Your task to perform on an android device: turn off javascript in the chrome app Image 0: 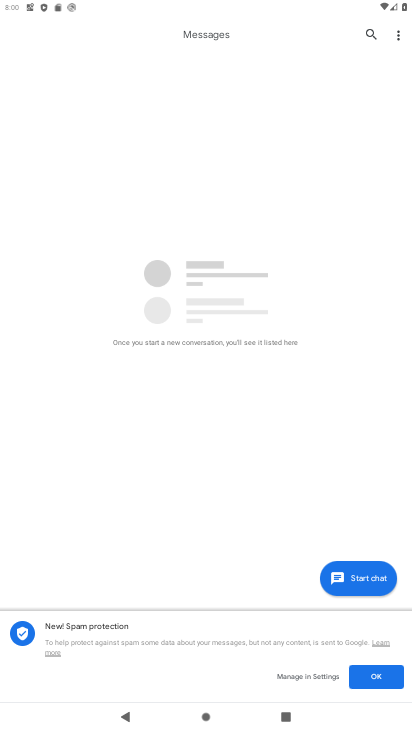
Step 0: press home button
Your task to perform on an android device: turn off javascript in the chrome app Image 1: 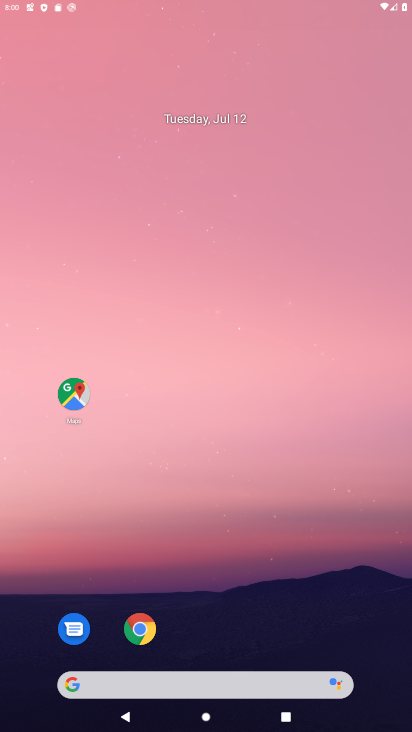
Step 1: drag from (196, 625) to (192, 252)
Your task to perform on an android device: turn off javascript in the chrome app Image 2: 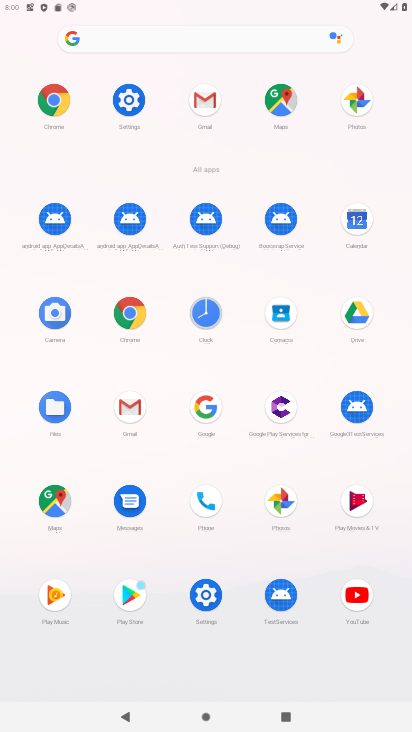
Step 2: click (119, 318)
Your task to perform on an android device: turn off javascript in the chrome app Image 3: 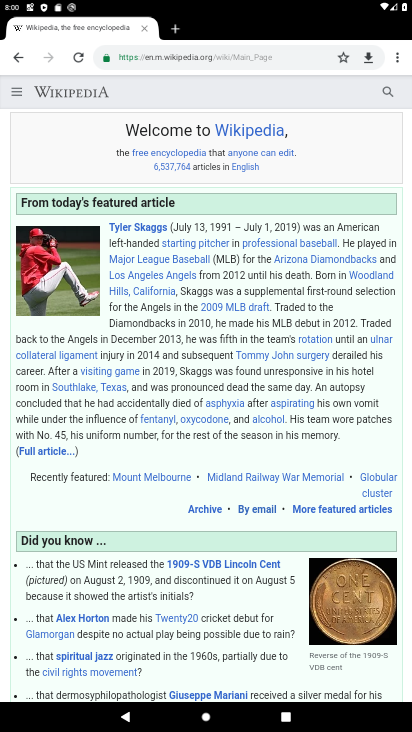
Step 3: click (397, 55)
Your task to perform on an android device: turn off javascript in the chrome app Image 4: 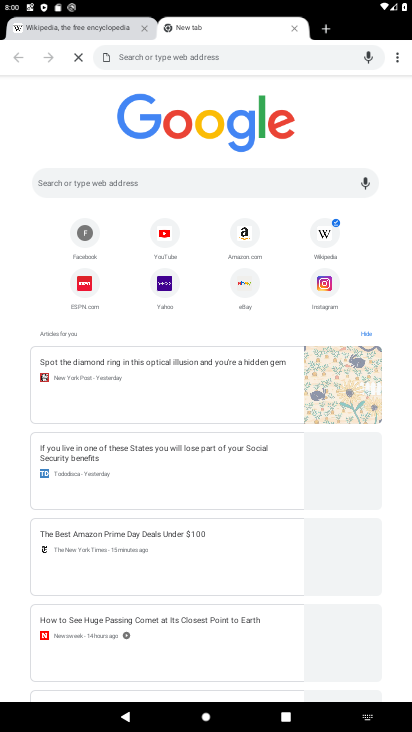
Step 4: click (408, 50)
Your task to perform on an android device: turn off javascript in the chrome app Image 5: 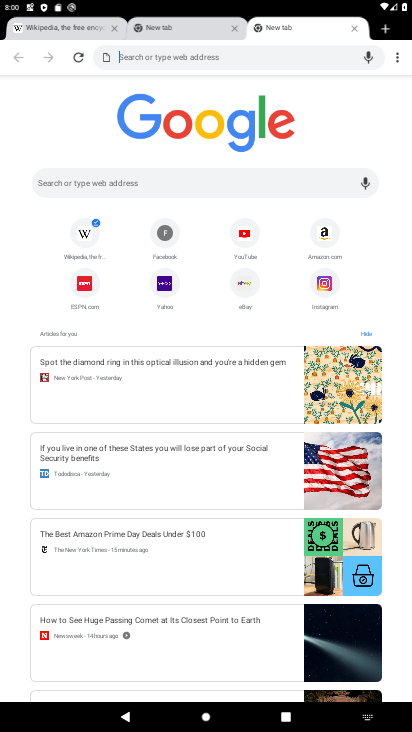
Step 5: click (406, 50)
Your task to perform on an android device: turn off javascript in the chrome app Image 6: 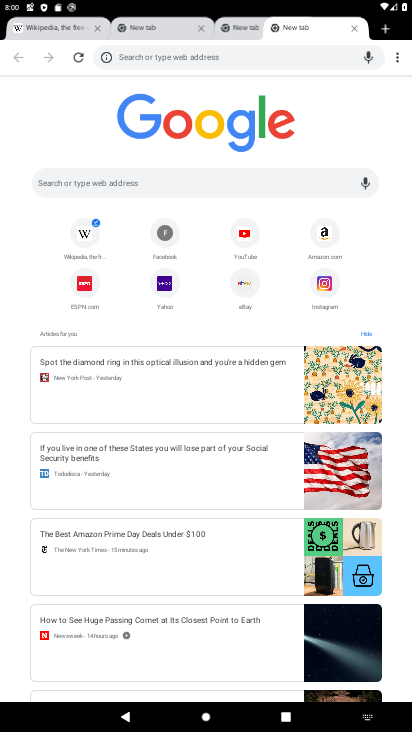
Step 6: click (398, 60)
Your task to perform on an android device: turn off javascript in the chrome app Image 7: 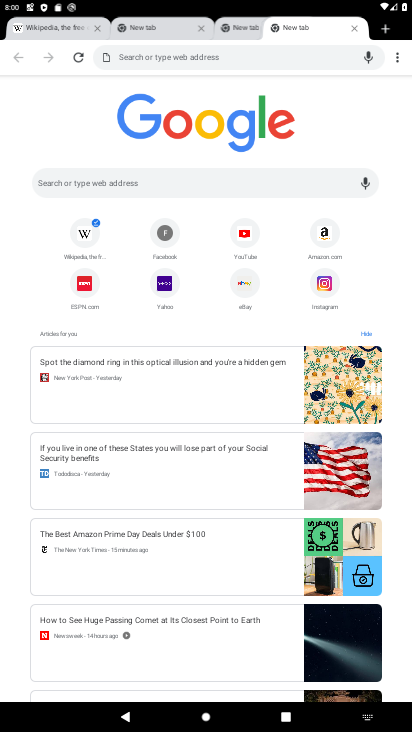
Step 7: click (404, 51)
Your task to perform on an android device: turn off javascript in the chrome app Image 8: 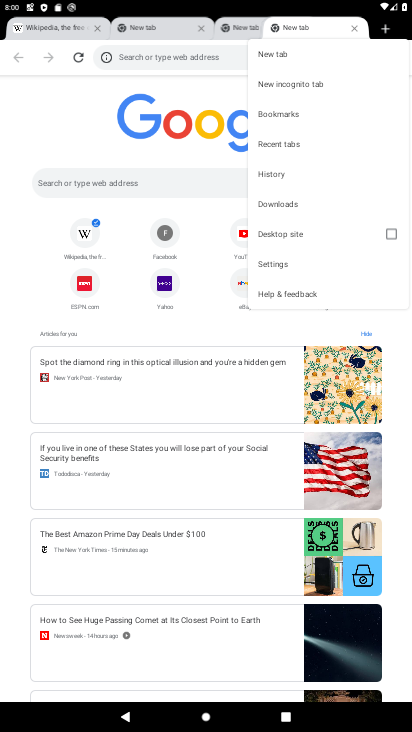
Step 8: click (304, 257)
Your task to perform on an android device: turn off javascript in the chrome app Image 9: 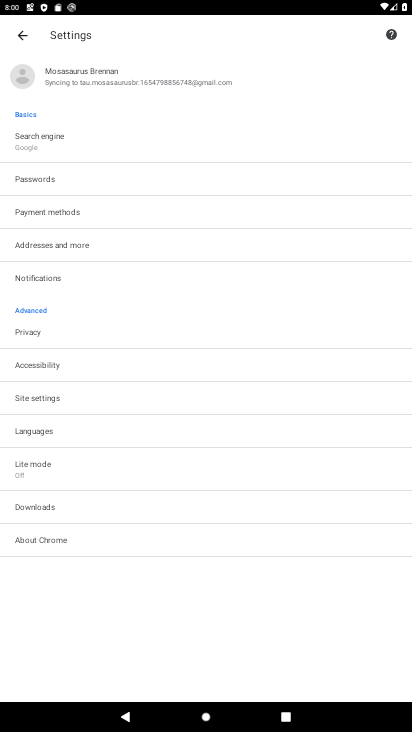
Step 9: click (49, 387)
Your task to perform on an android device: turn off javascript in the chrome app Image 10: 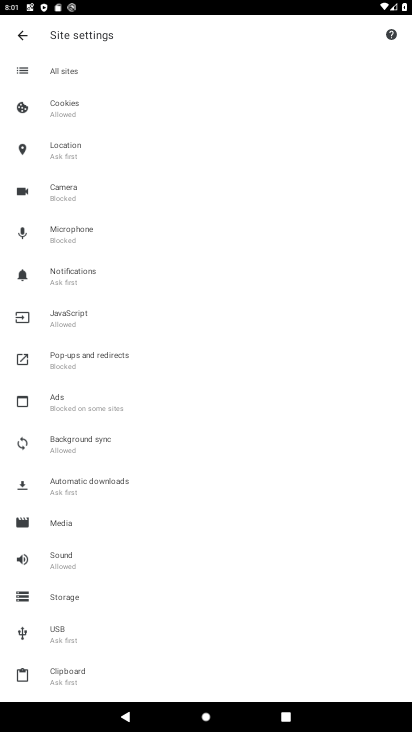
Step 10: click (53, 306)
Your task to perform on an android device: turn off javascript in the chrome app Image 11: 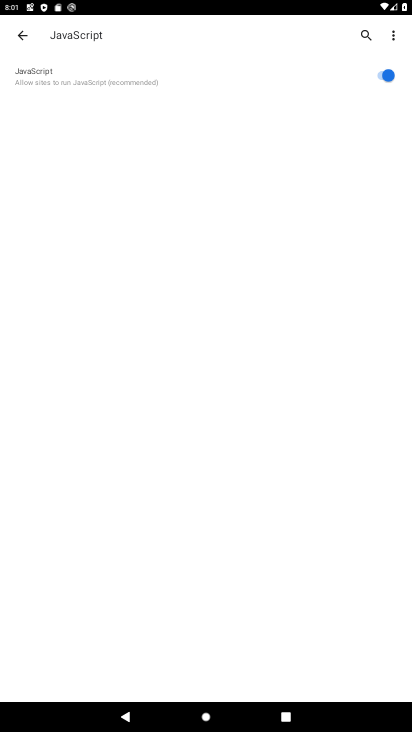
Step 11: click (373, 72)
Your task to perform on an android device: turn off javascript in the chrome app Image 12: 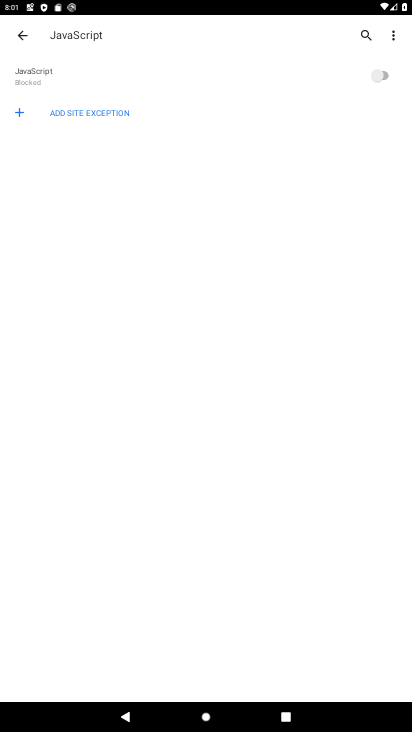
Step 12: task complete